Your task to perform on an android device: Open calendar and show me the first week of next month Image 0: 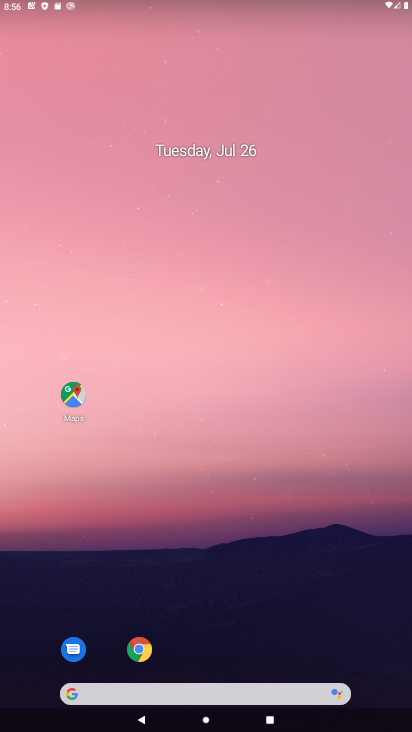
Step 0: drag from (189, 643) to (265, 250)
Your task to perform on an android device: Open calendar and show me the first week of next month Image 1: 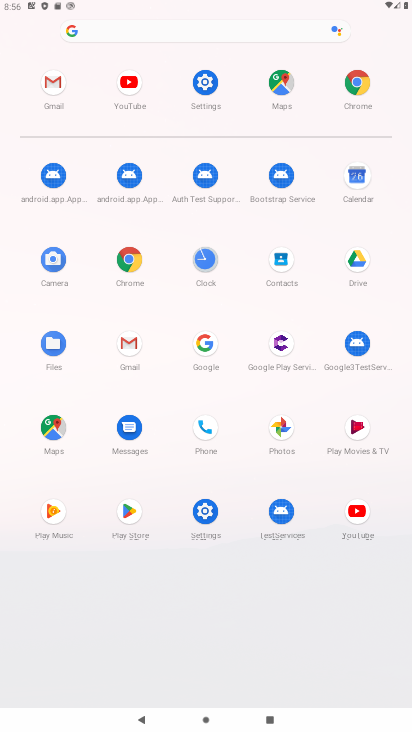
Step 1: click (359, 181)
Your task to perform on an android device: Open calendar and show me the first week of next month Image 2: 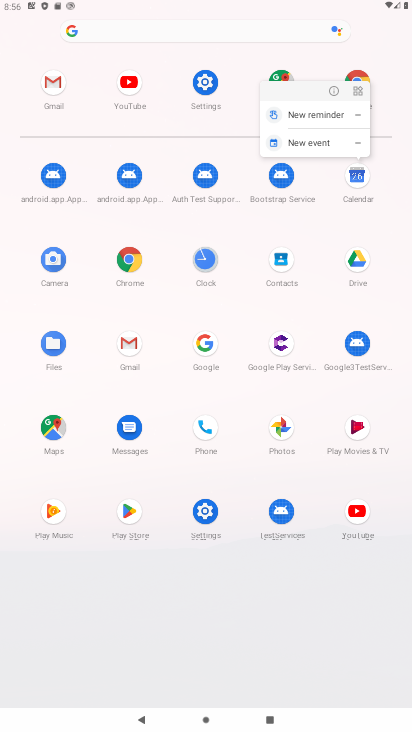
Step 2: click (334, 85)
Your task to perform on an android device: Open calendar and show me the first week of next month Image 3: 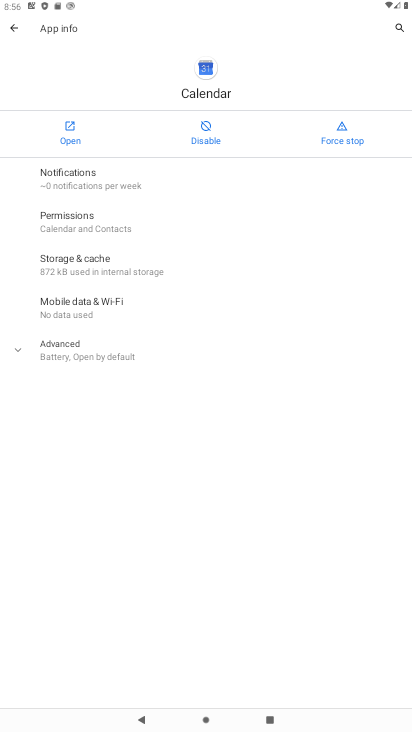
Step 3: click (74, 142)
Your task to perform on an android device: Open calendar and show me the first week of next month Image 4: 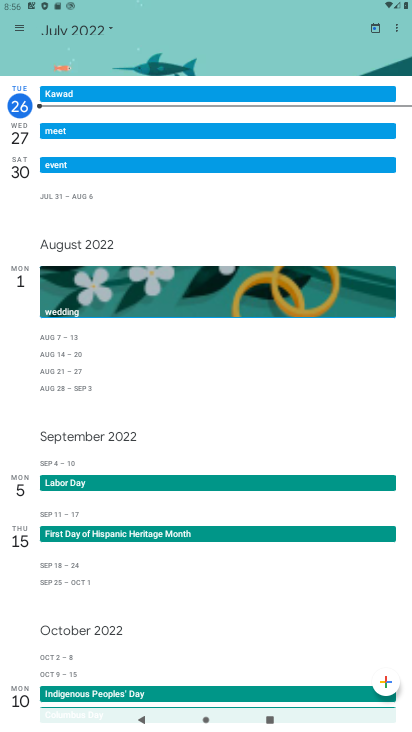
Step 4: drag from (167, 553) to (193, 348)
Your task to perform on an android device: Open calendar and show me the first week of next month Image 5: 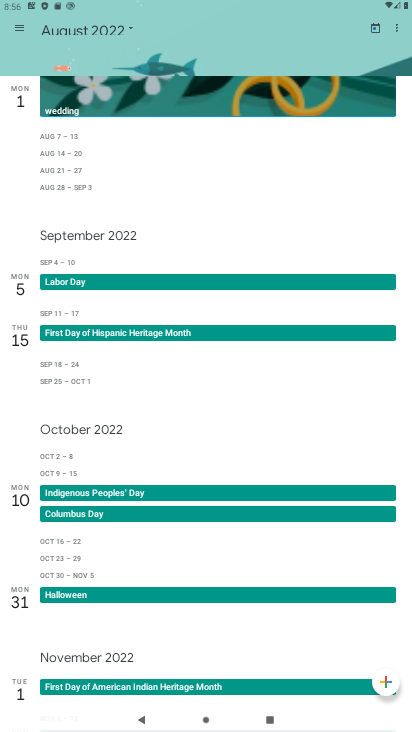
Step 5: drag from (197, 313) to (218, 580)
Your task to perform on an android device: Open calendar and show me the first week of next month Image 6: 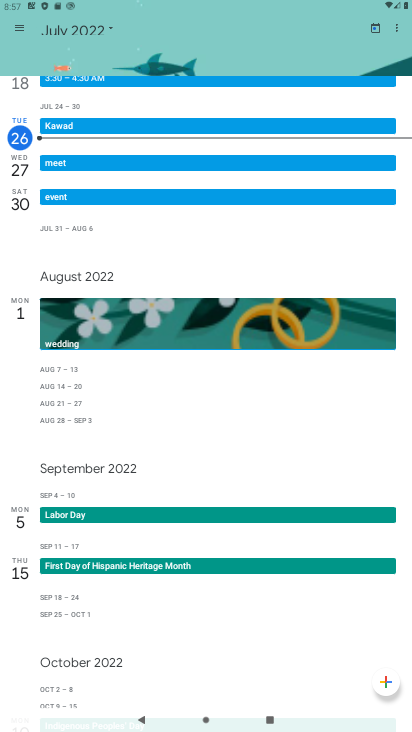
Step 6: click (84, 32)
Your task to perform on an android device: Open calendar and show me the first week of next month Image 7: 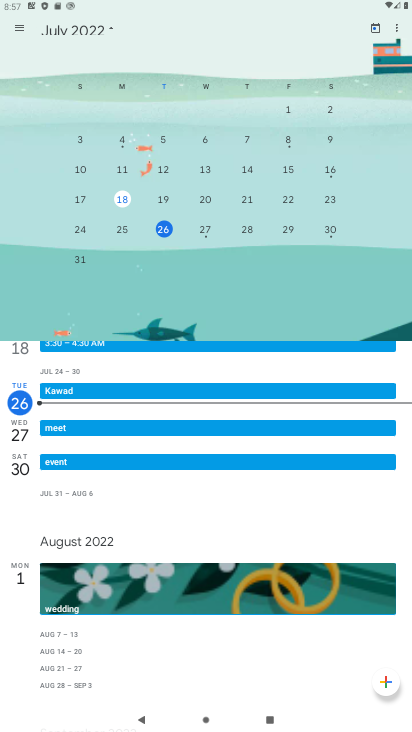
Step 7: drag from (330, 186) to (56, 271)
Your task to perform on an android device: Open calendar and show me the first week of next month Image 8: 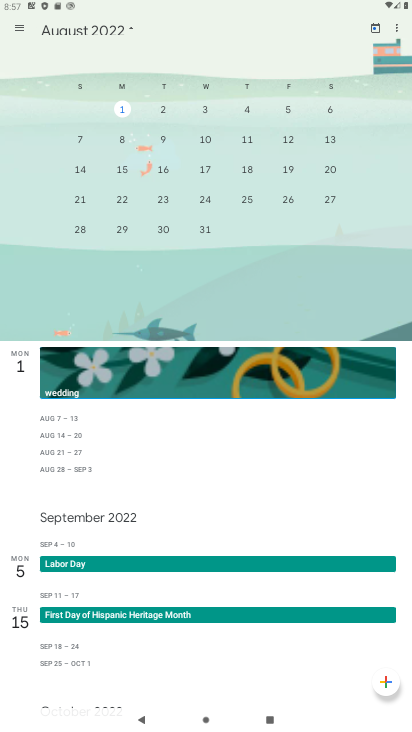
Step 8: drag from (326, 222) to (152, 221)
Your task to perform on an android device: Open calendar and show me the first week of next month Image 9: 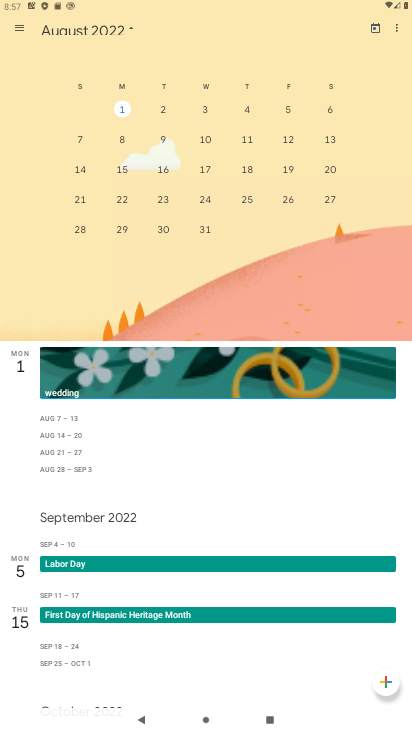
Step 9: click (244, 110)
Your task to perform on an android device: Open calendar and show me the first week of next month Image 10: 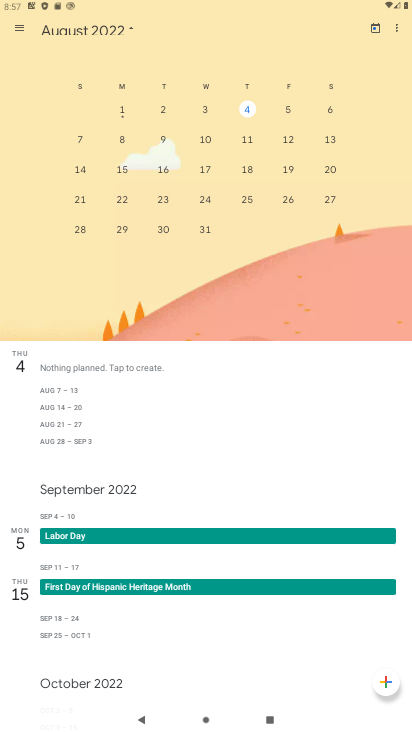
Step 10: task complete